Your task to perform on an android device: Go to calendar. Show me events next week Image 0: 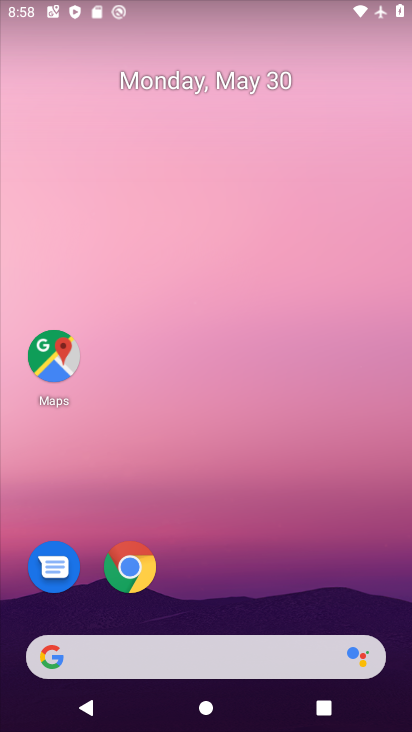
Step 0: drag from (243, 612) to (192, 151)
Your task to perform on an android device: Go to calendar. Show me events next week Image 1: 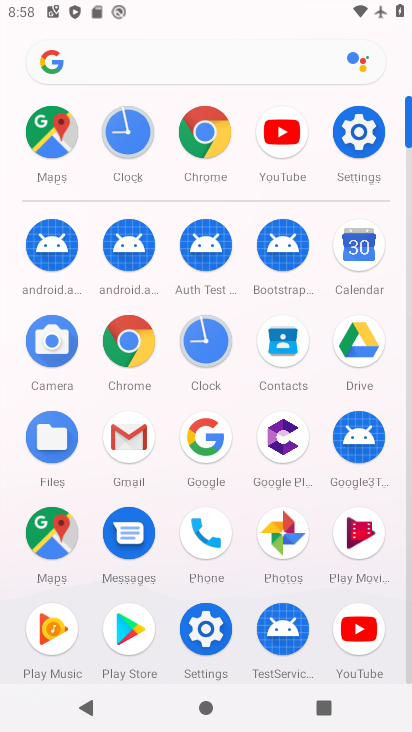
Step 1: click (358, 259)
Your task to perform on an android device: Go to calendar. Show me events next week Image 2: 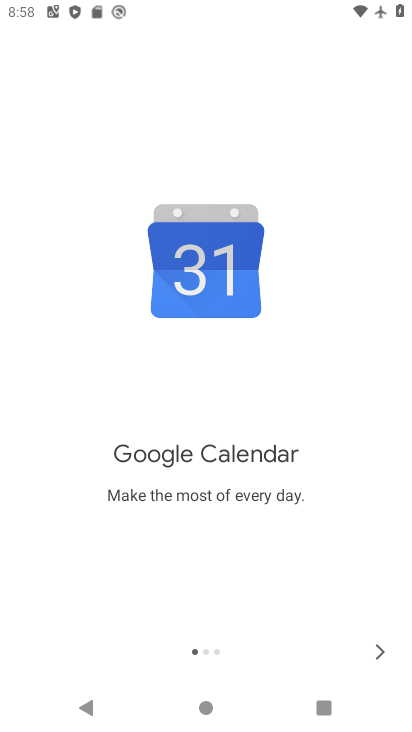
Step 2: click (377, 658)
Your task to perform on an android device: Go to calendar. Show me events next week Image 3: 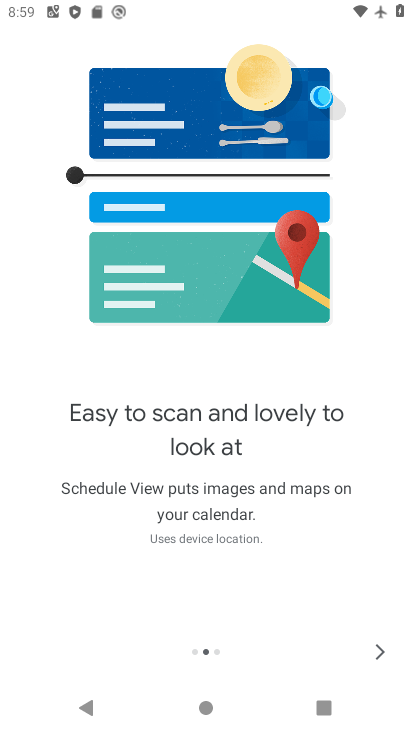
Step 3: click (377, 658)
Your task to perform on an android device: Go to calendar. Show me events next week Image 4: 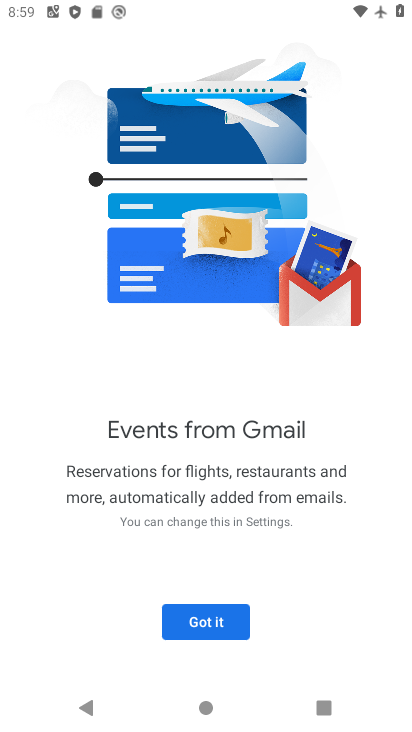
Step 4: click (226, 621)
Your task to perform on an android device: Go to calendar. Show me events next week Image 5: 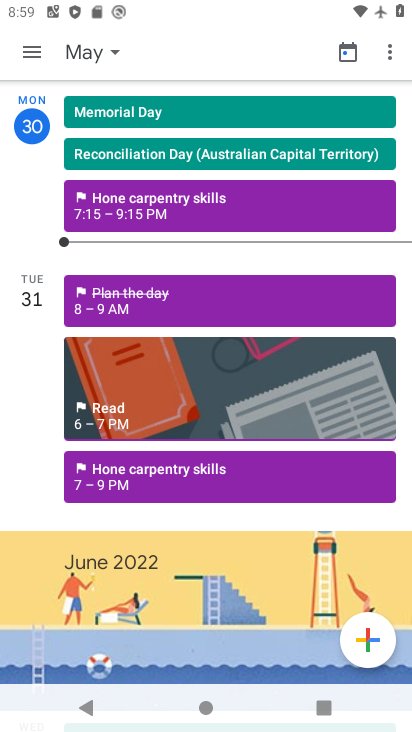
Step 5: click (34, 46)
Your task to perform on an android device: Go to calendar. Show me events next week Image 6: 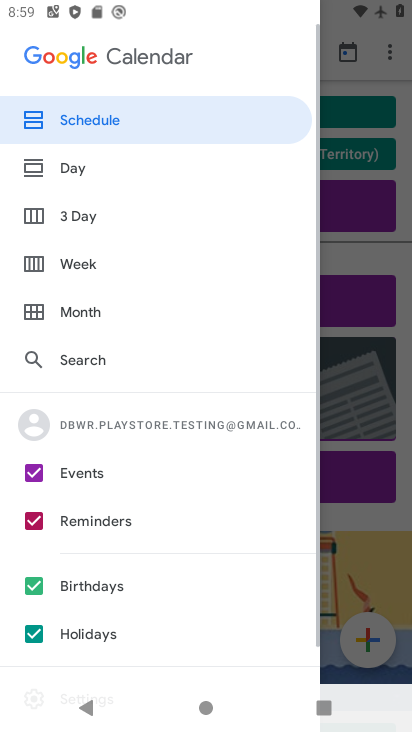
Step 6: click (34, 631)
Your task to perform on an android device: Go to calendar. Show me events next week Image 7: 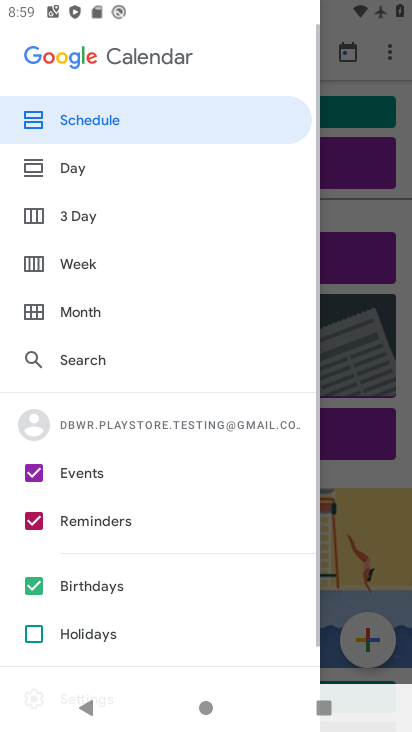
Step 7: click (31, 591)
Your task to perform on an android device: Go to calendar. Show me events next week Image 8: 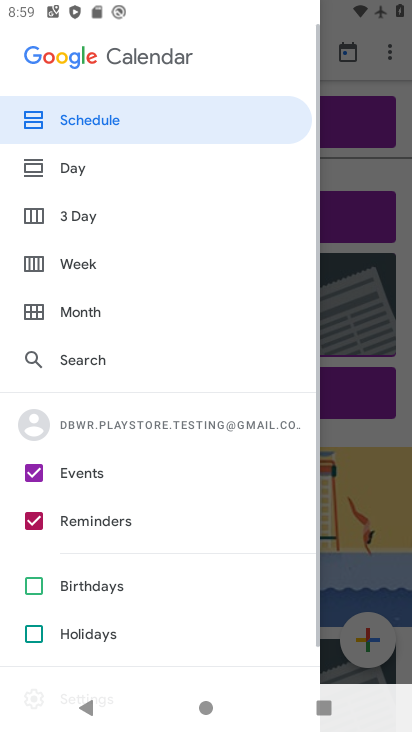
Step 8: click (31, 528)
Your task to perform on an android device: Go to calendar. Show me events next week Image 9: 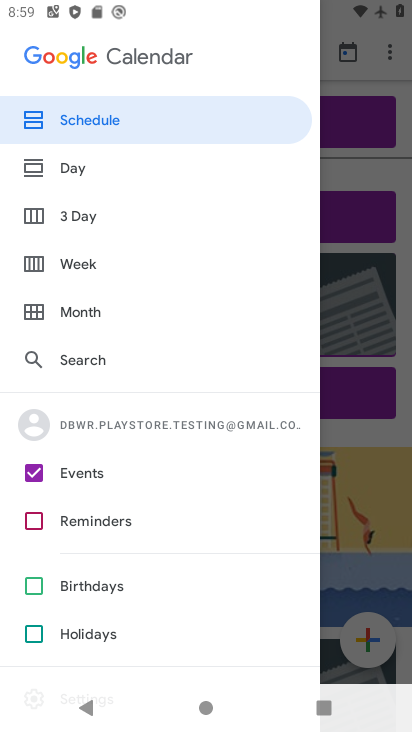
Step 9: click (53, 263)
Your task to perform on an android device: Go to calendar. Show me events next week Image 10: 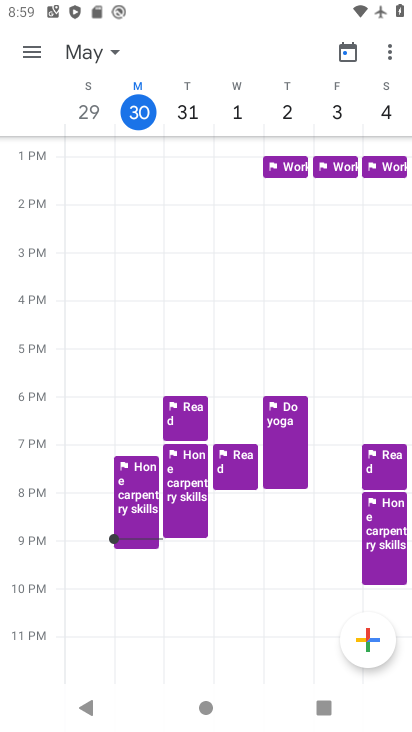
Step 10: task complete